Your task to perform on an android device: toggle location history Image 0: 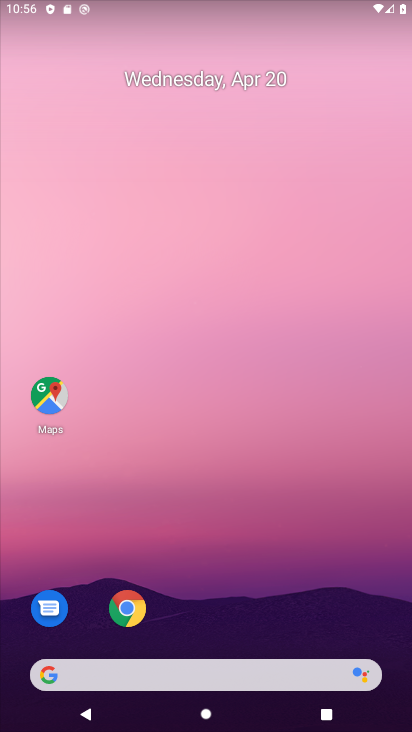
Step 0: drag from (210, 607) to (183, 145)
Your task to perform on an android device: toggle location history Image 1: 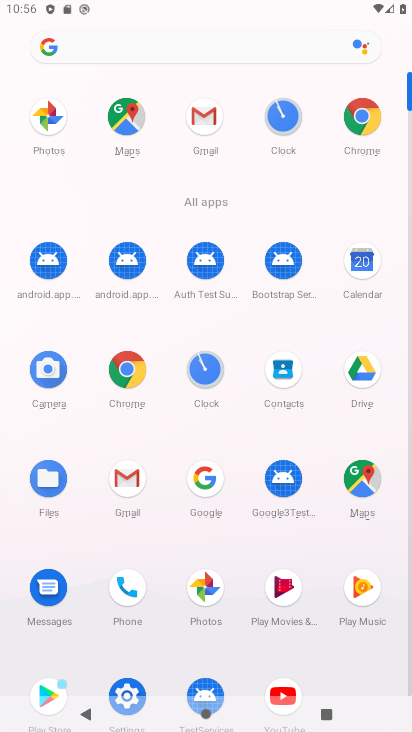
Step 1: click (127, 691)
Your task to perform on an android device: toggle location history Image 2: 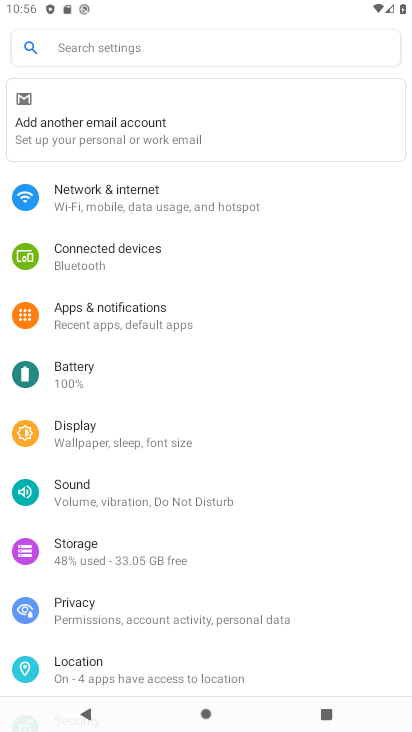
Step 2: drag from (196, 556) to (172, 405)
Your task to perform on an android device: toggle location history Image 3: 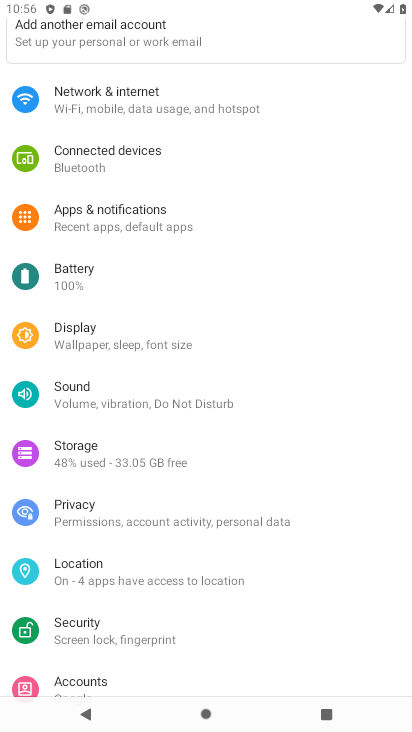
Step 3: click (122, 570)
Your task to perform on an android device: toggle location history Image 4: 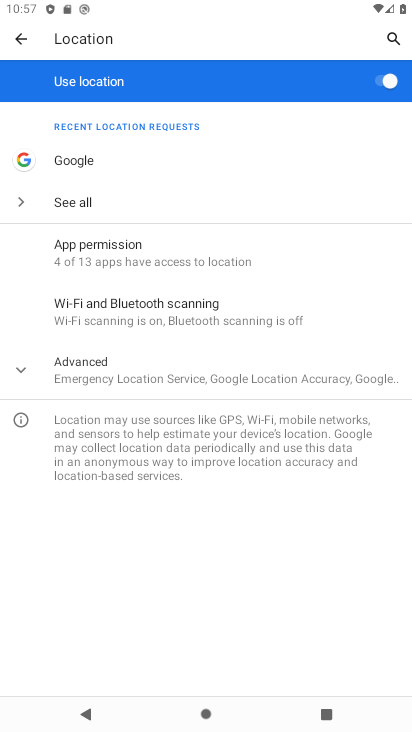
Step 4: click (86, 367)
Your task to perform on an android device: toggle location history Image 5: 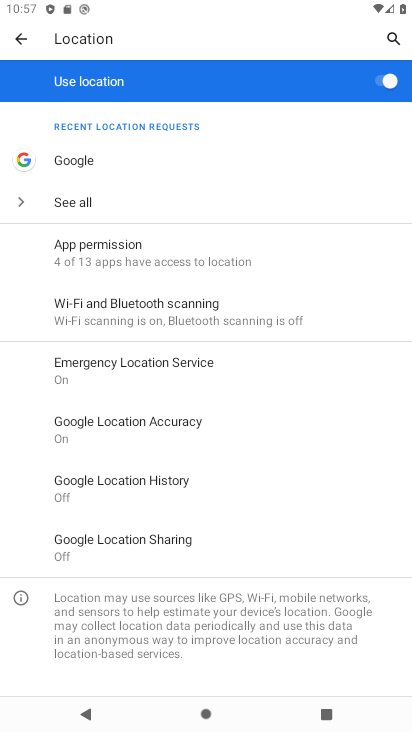
Step 5: click (141, 481)
Your task to perform on an android device: toggle location history Image 6: 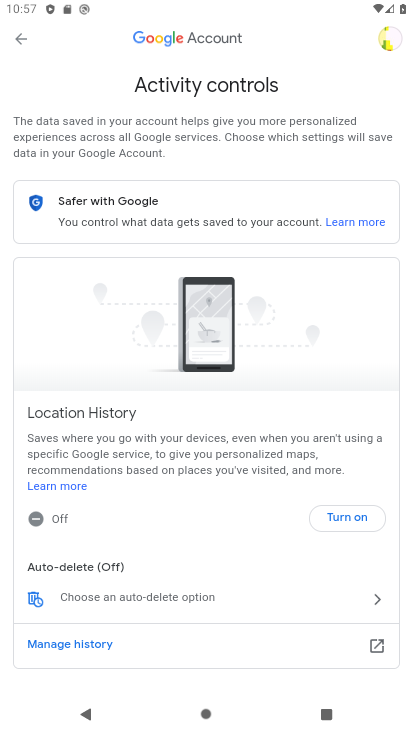
Step 6: click (338, 518)
Your task to perform on an android device: toggle location history Image 7: 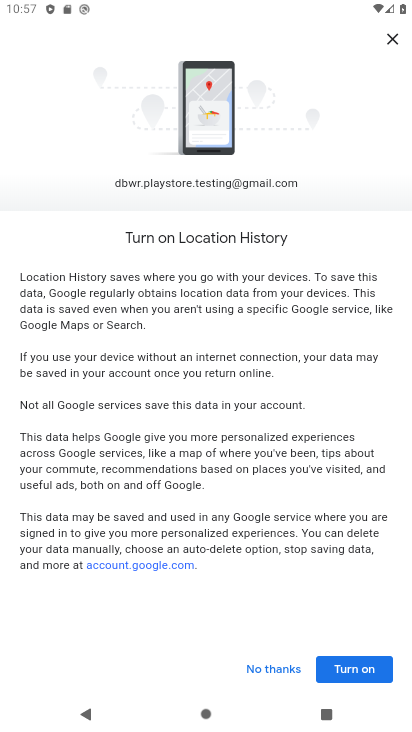
Step 7: click (345, 664)
Your task to perform on an android device: toggle location history Image 8: 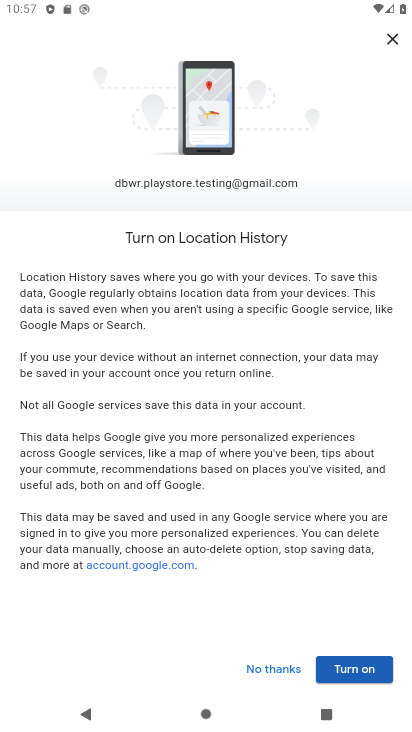
Step 8: click (348, 675)
Your task to perform on an android device: toggle location history Image 9: 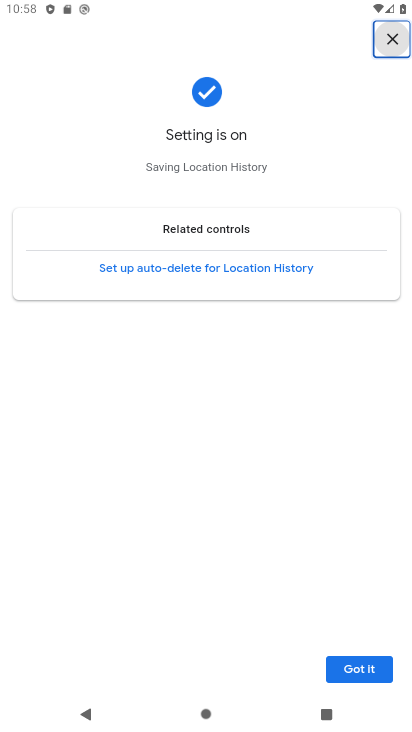
Step 9: task complete